Your task to perform on an android device: Open Chrome and go to settings Image 0: 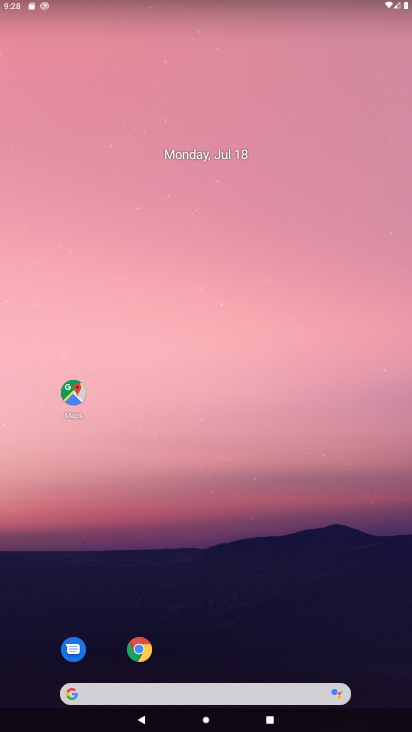
Step 0: drag from (328, 576) to (290, 0)
Your task to perform on an android device: Open Chrome and go to settings Image 1: 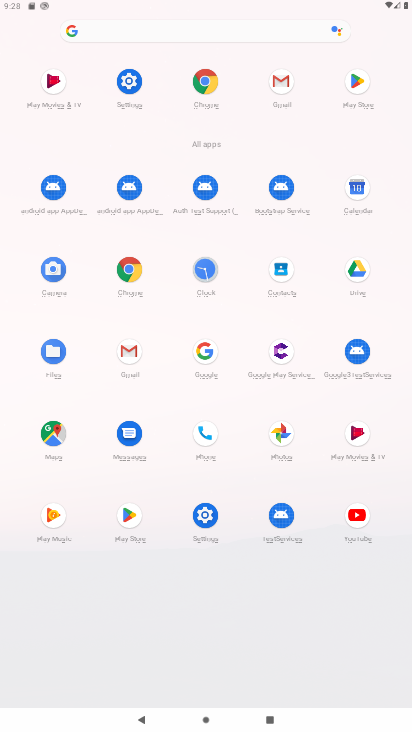
Step 1: click (203, 86)
Your task to perform on an android device: Open Chrome and go to settings Image 2: 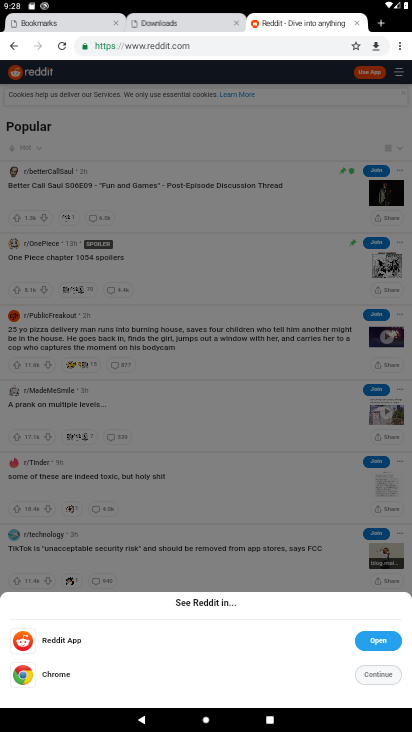
Step 2: task complete